Your task to perform on an android device: Add "asus rog" to the cart on ebay, then select checkout. Image 0: 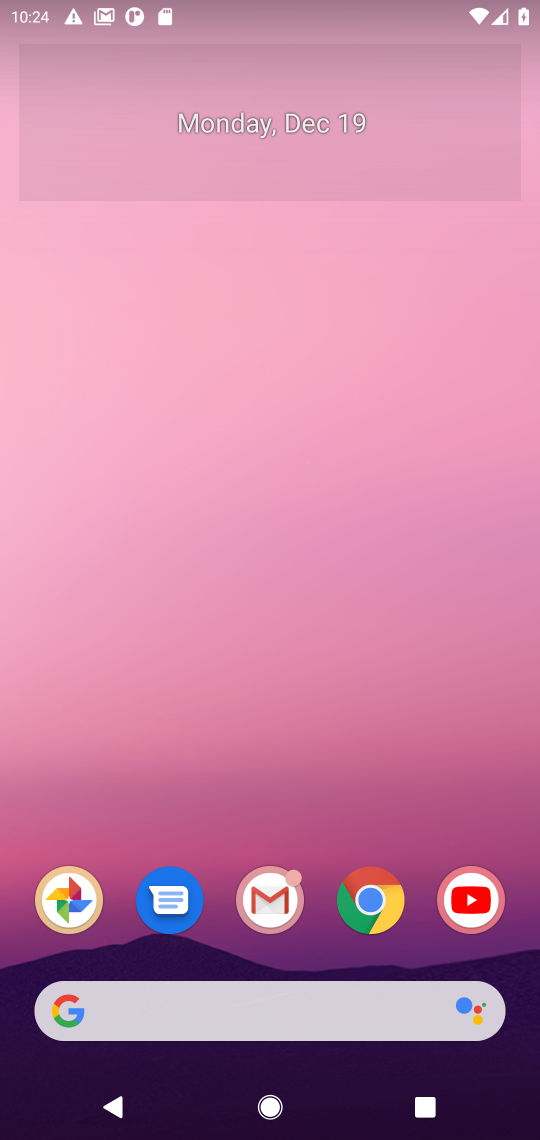
Step 0: task impossible